Your task to perform on an android device: show emergency info Image 0: 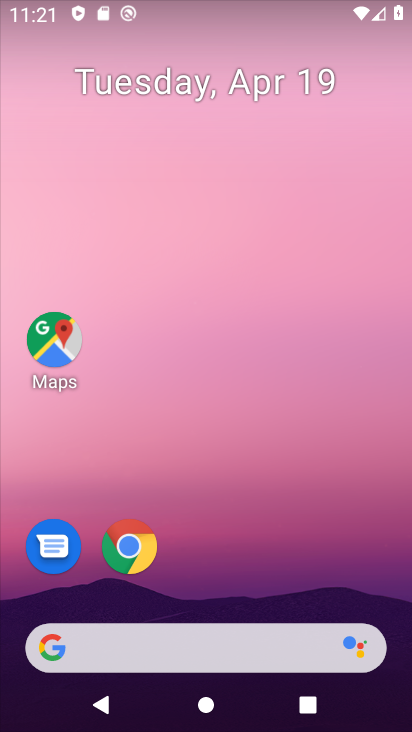
Step 0: drag from (366, 559) to (256, 10)
Your task to perform on an android device: show emergency info Image 1: 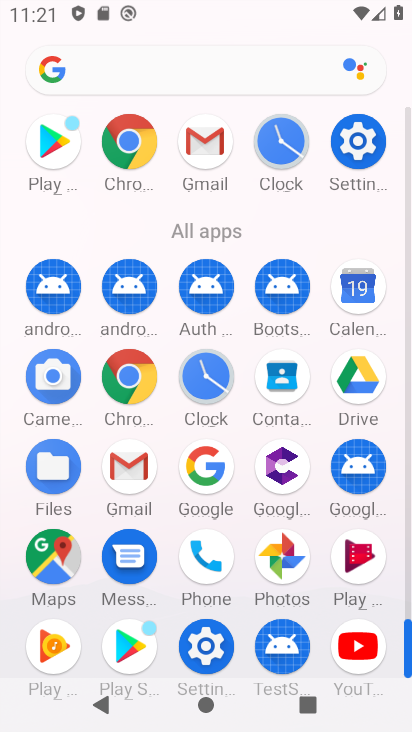
Step 1: drag from (7, 508) to (10, 281)
Your task to perform on an android device: show emergency info Image 2: 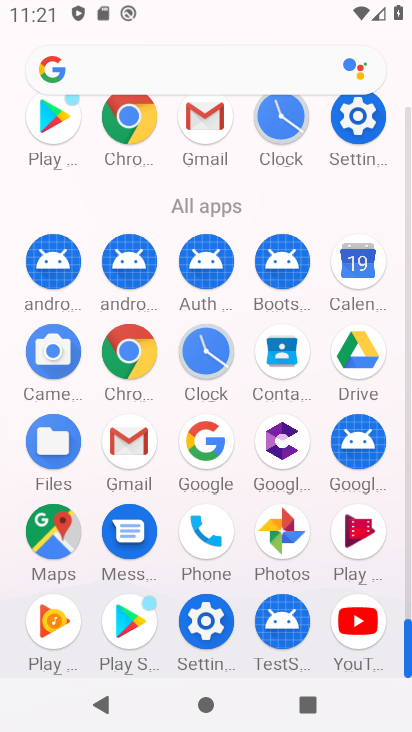
Step 2: click (356, 117)
Your task to perform on an android device: show emergency info Image 3: 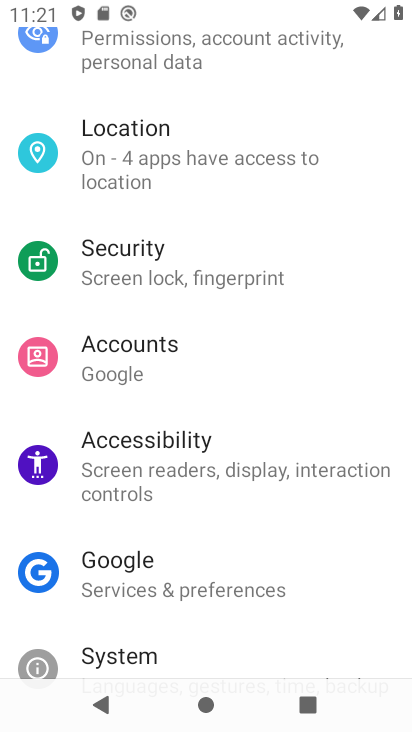
Step 3: drag from (321, 597) to (288, 92)
Your task to perform on an android device: show emergency info Image 4: 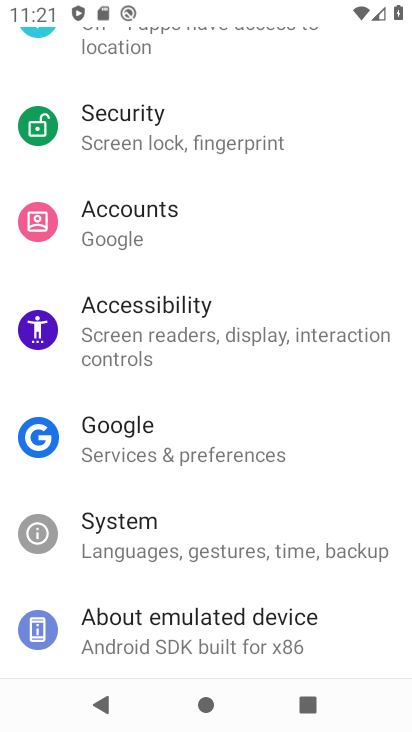
Step 4: click (198, 638)
Your task to perform on an android device: show emergency info Image 5: 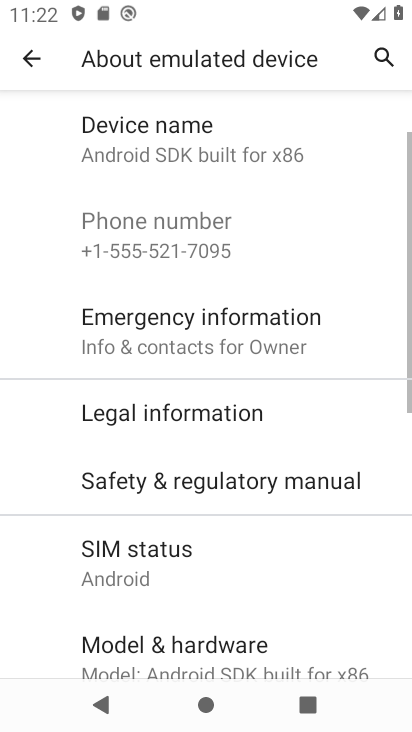
Step 5: drag from (290, 524) to (283, 204)
Your task to perform on an android device: show emergency info Image 6: 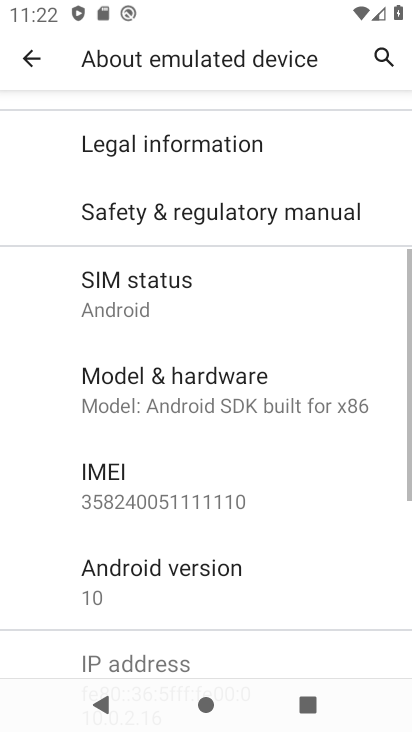
Step 6: drag from (271, 183) to (265, 544)
Your task to perform on an android device: show emergency info Image 7: 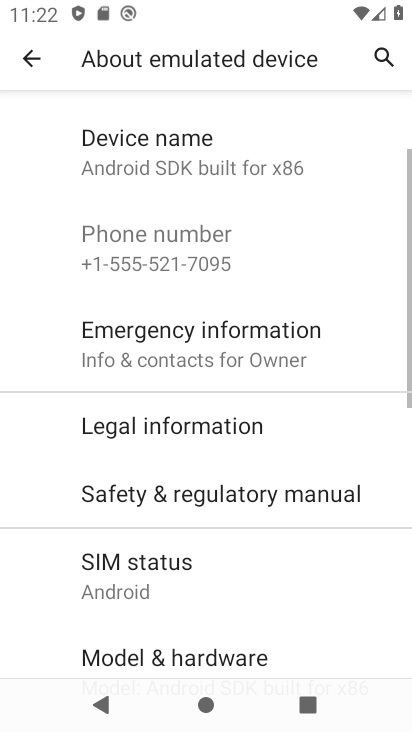
Step 7: click (231, 339)
Your task to perform on an android device: show emergency info Image 8: 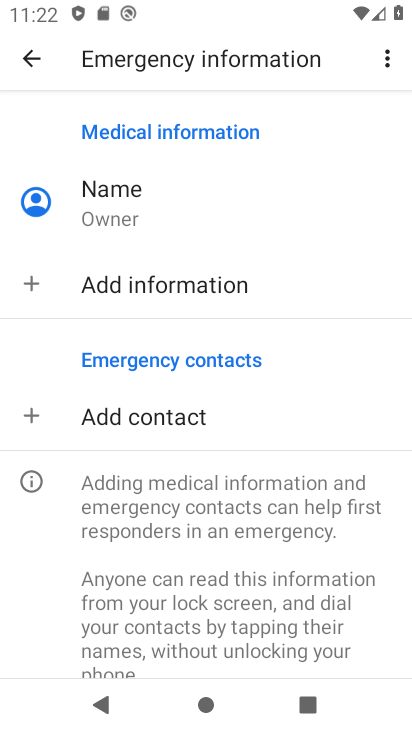
Step 8: task complete